Your task to perform on an android device: install app "Airtel Thanks" Image 0: 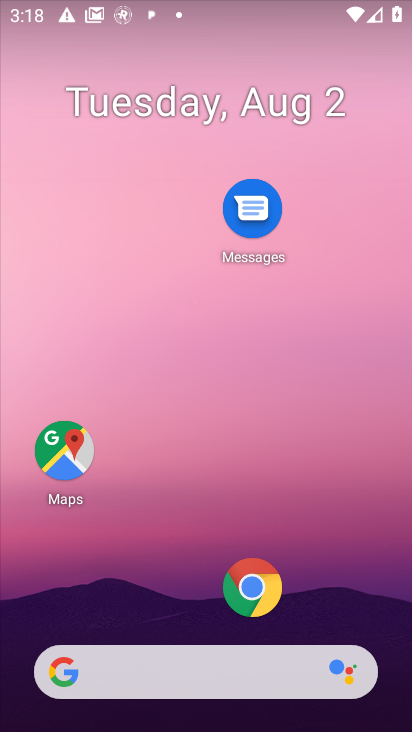
Step 0: drag from (200, 605) to (209, 254)
Your task to perform on an android device: install app "Airtel Thanks" Image 1: 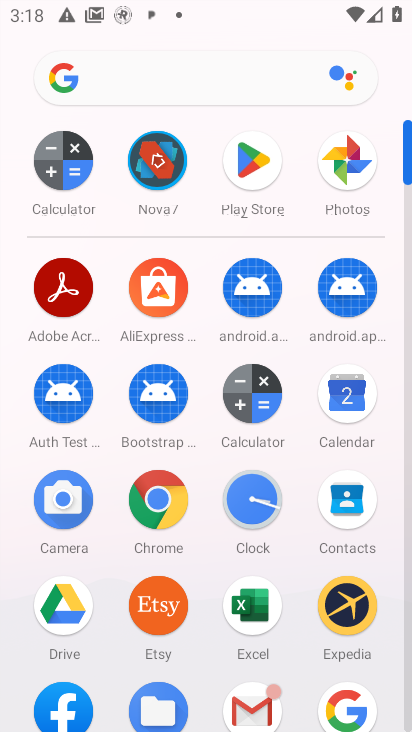
Step 1: click (263, 166)
Your task to perform on an android device: install app "Airtel Thanks" Image 2: 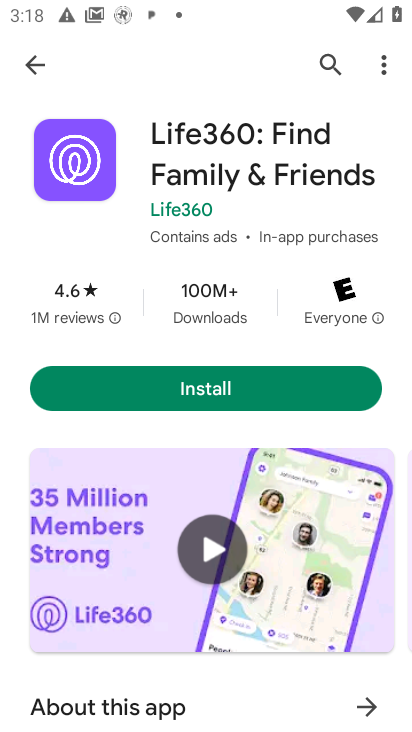
Step 2: click (325, 72)
Your task to perform on an android device: install app "Airtel Thanks" Image 3: 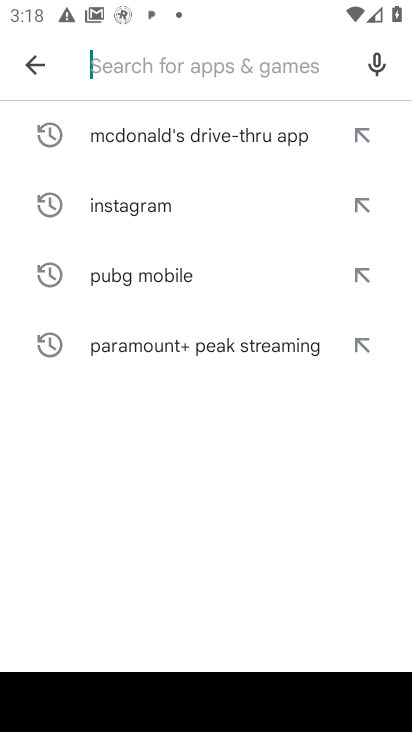
Step 3: type "Airtel Thanks"
Your task to perform on an android device: install app "Airtel Thanks" Image 4: 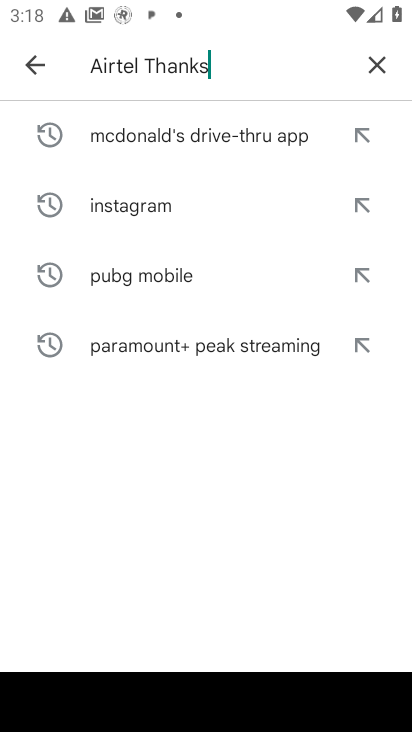
Step 4: type ""
Your task to perform on an android device: install app "Airtel Thanks" Image 5: 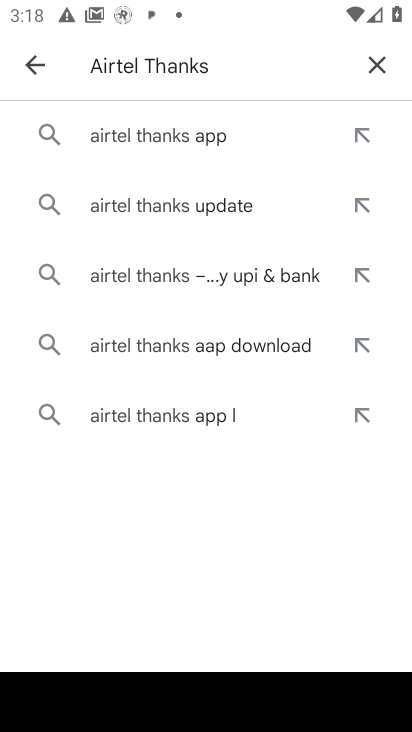
Step 5: click (193, 143)
Your task to perform on an android device: install app "Airtel Thanks" Image 6: 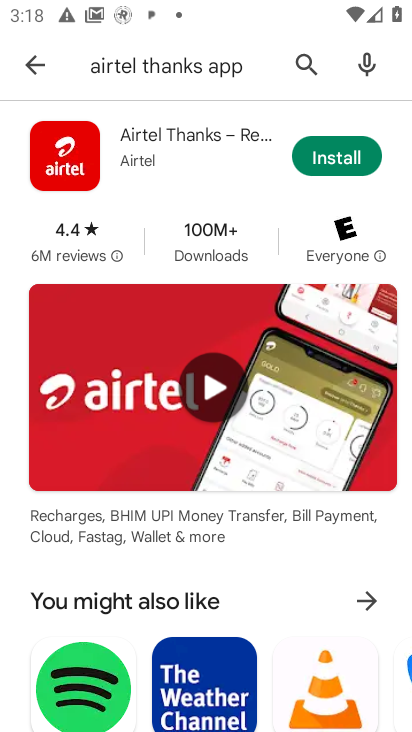
Step 6: click (315, 158)
Your task to perform on an android device: install app "Airtel Thanks" Image 7: 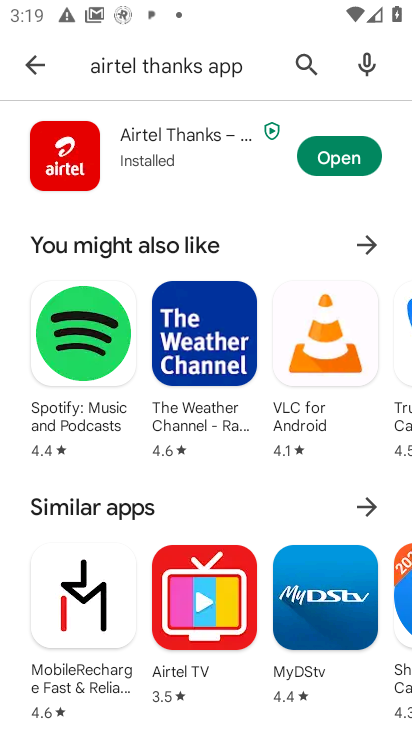
Step 7: task complete